Your task to perform on an android device: When is my next appointment? Image 0: 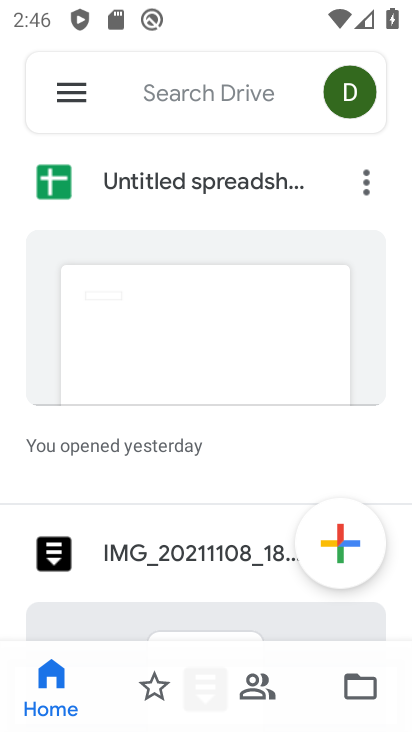
Step 0: press home button
Your task to perform on an android device: When is my next appointment? Image 1: 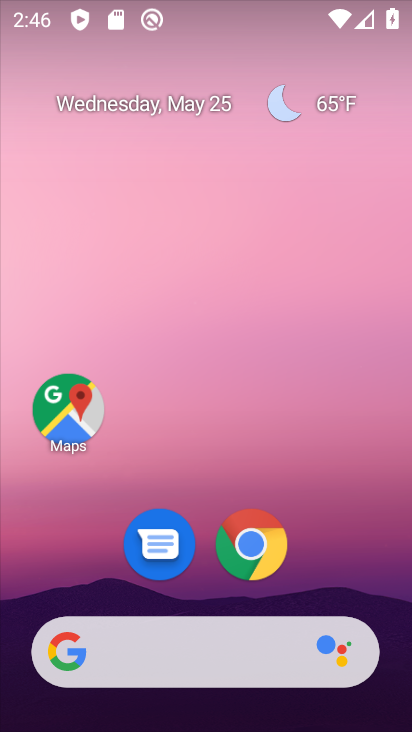
Step 1: drag from (359, 573) to (207, 79)
Your task to perform on an android device: When is my next appointment? Image 2: 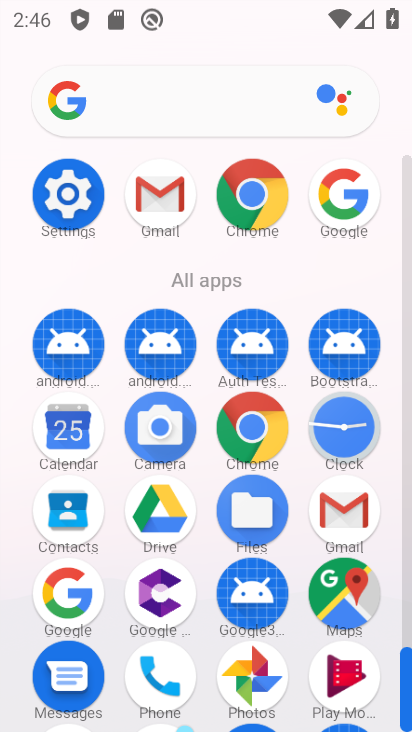
Step 2: click (75, 425)
Your task to perform on an android device: When is my next appointment? Image 3: 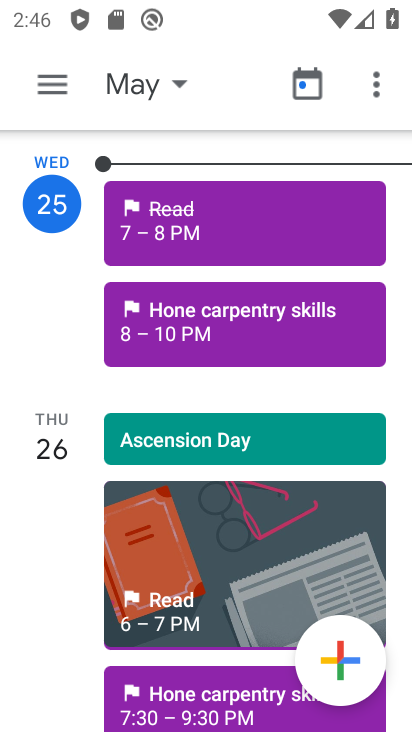
Step 3: task complete